Your task to perform on an android device: toggle show notifications on the lock screen Image 0: 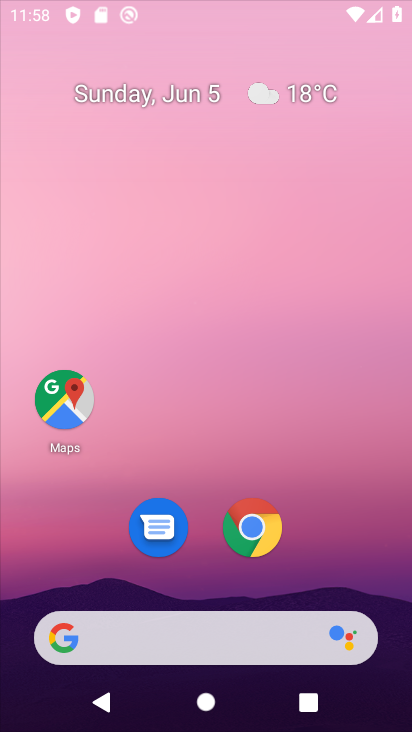
Step 0: drag from (189, 584) to (110, 33)
Your task to perform on an android device: toggle show notifications on the lock screen Image 1: 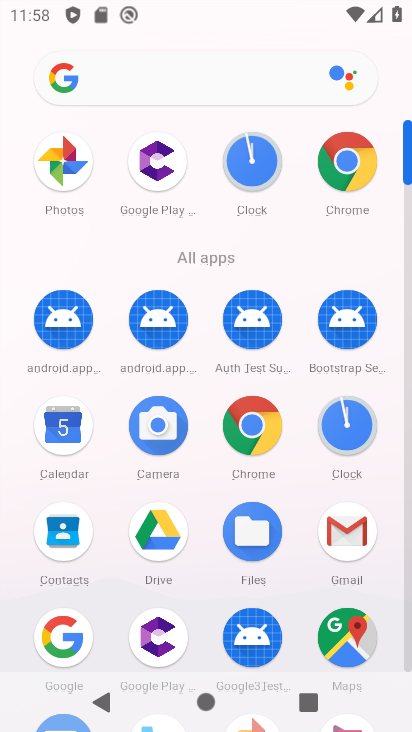
Step 1: drag from (199, 602) to (398, 63)
Your task to perform on an android device: toggle show notifications on the lock screen Image 2: 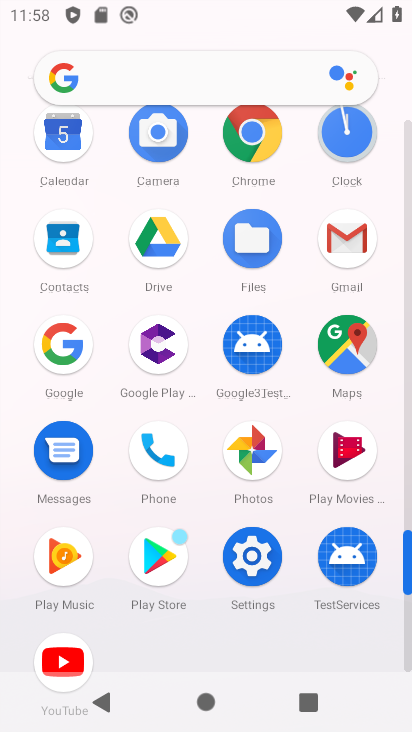
Step 2: click (234, 563)
Your task to perform on an android device: toggle show notifications on the lock screen Image 3: 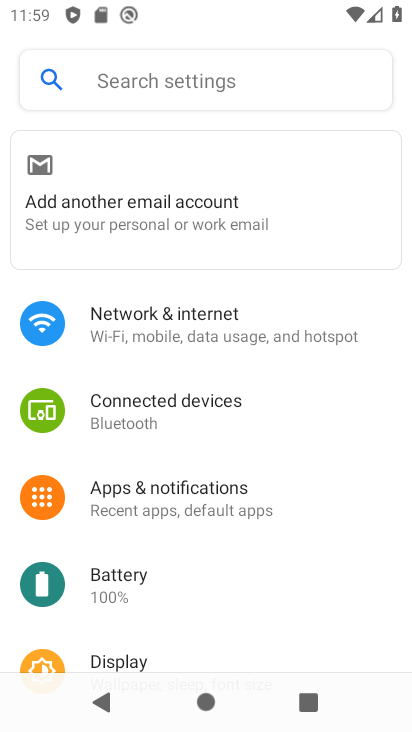
Step 3: click (74, 511)
Your task to perform on an android device: toggle show notifications on the lock screen Image 4: 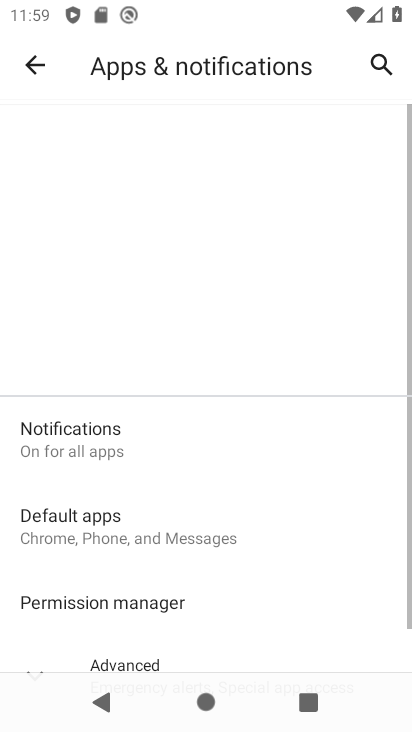
Step 4: click (103, 456)
Your task to perform on an android device: toggle show notifications on the lock screen Image 5: 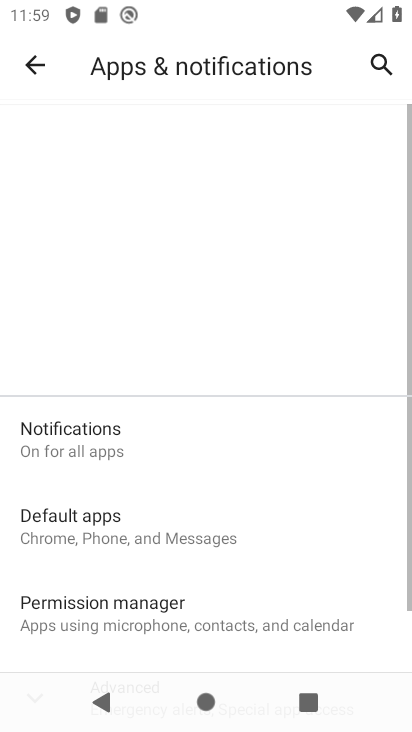
Step 5: drag from (250, 572) to (199, 0)
Your task to perform on an android device: toggle show notifications on the lock screen Image 6: 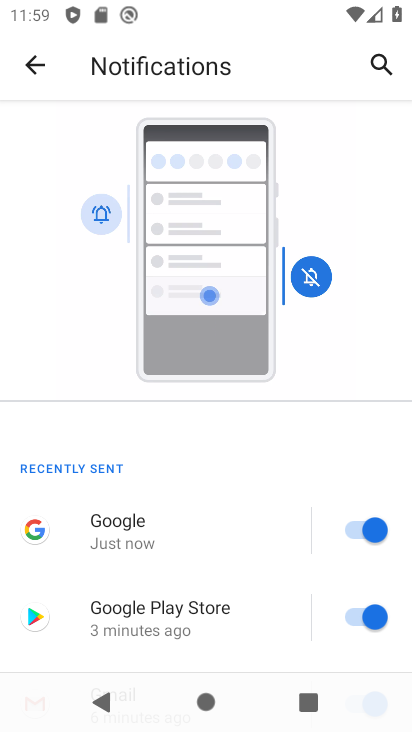
Step 6: drag from (253, 559) to (226, 15)
Your task to perform on an android device: toggle show notifications on the lock screen Image 7: 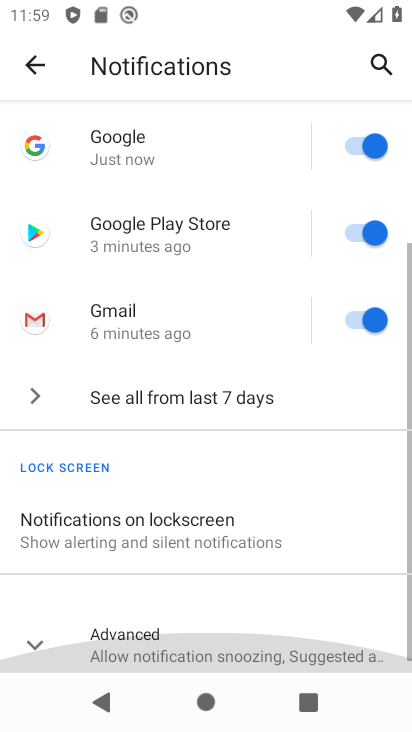
Step 7: drag from (228, 576) to (200, 268)
Your task to perform on an android device: toggle show notifications on the lock screen Image 8: 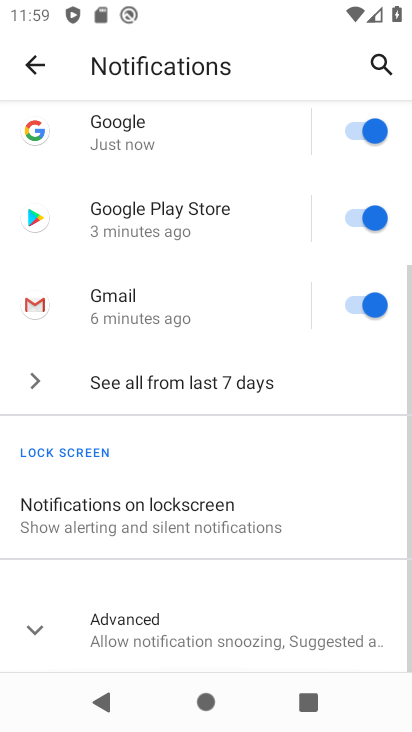
Step 8: click (211, 497)
Your task to perform on an android device: toggle show notifications on the lock screen Image 9: 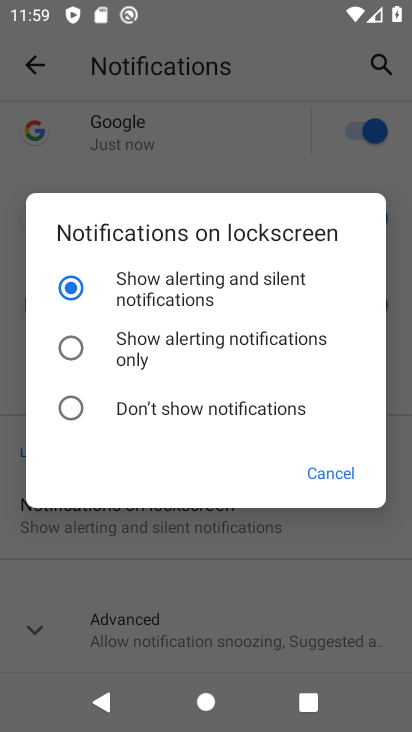
Step 9: click (222, 298)
Your task to perform on an android device: toggle show notifications on the lock screen Image 10: 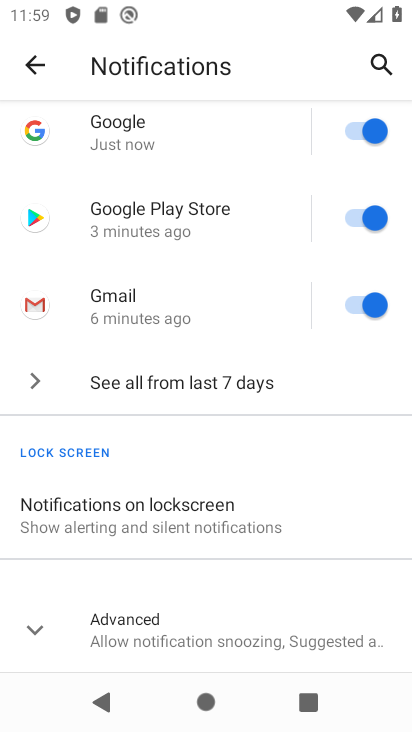
Step 10: task complete